Your task to perform on an android device: Open Youtube and go to "Your channel" Image 0: 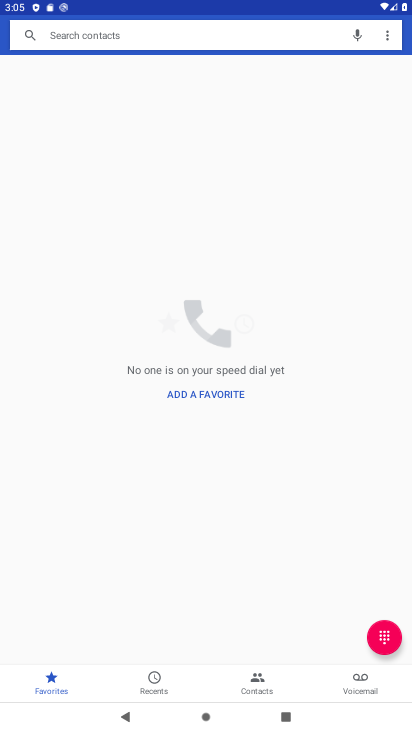
Step 0: press home button
Your task to perform on an android device: Open Youtube and go to "Your channel" Image 1: 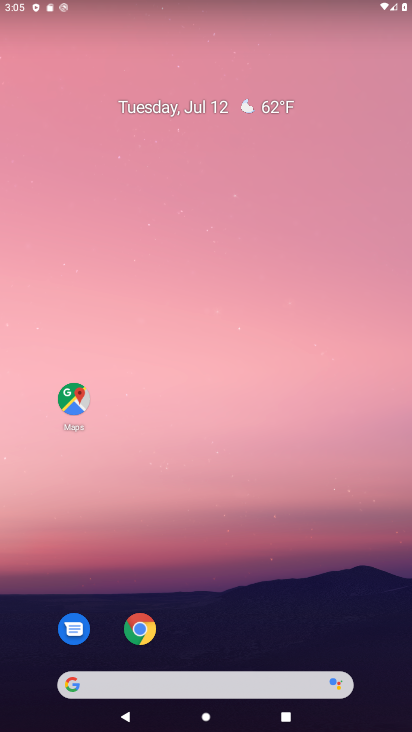
Step 1: drag from (155, 673) to (180, 211)
Your task to perform on an android device: Open Youtube and go to "Your channel" Image 2: 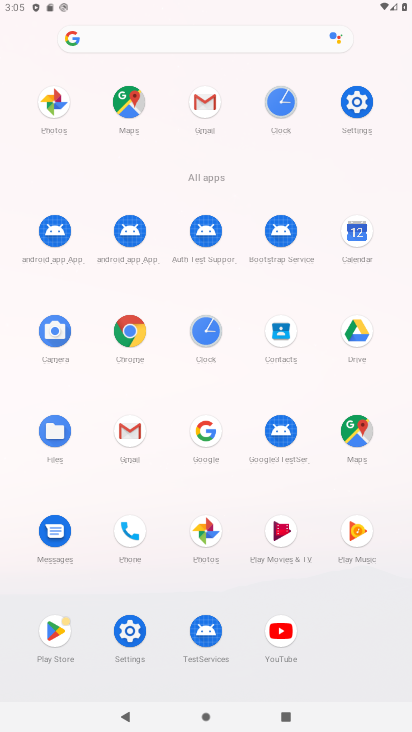
Step 2: click (272, 639)
Your task to perform on an android device: Open Youtube and go to "Your channel" Image 3: 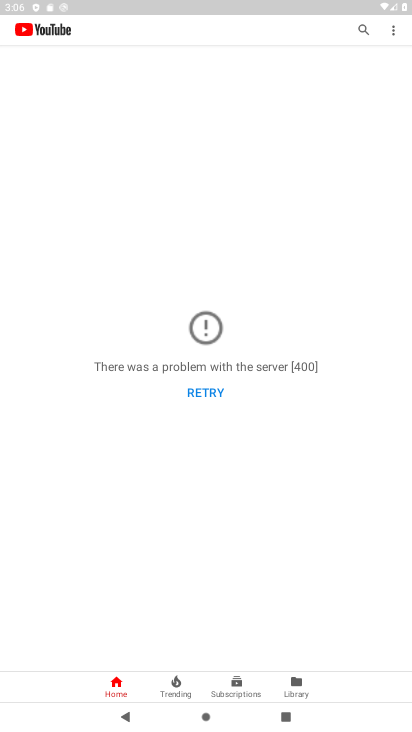
Step 3: click (295, 691)
Your task to perform on an android device: Open Youtube and go to "Your channel" Image 4: 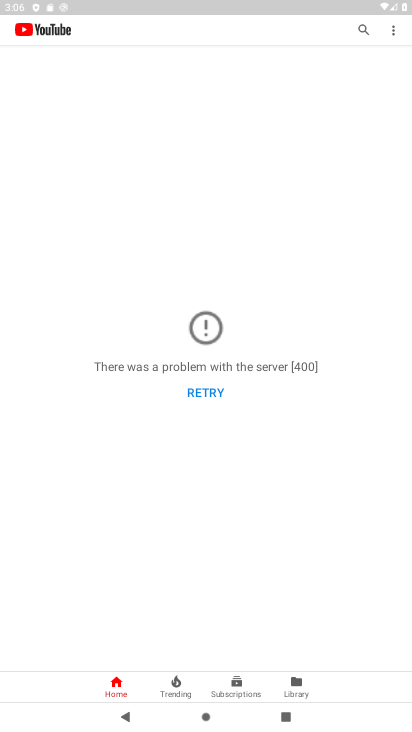
Step 4: click (291, 690)
Your task to perform on an android device: Open Youtube and go to "Your channel" Image 5: 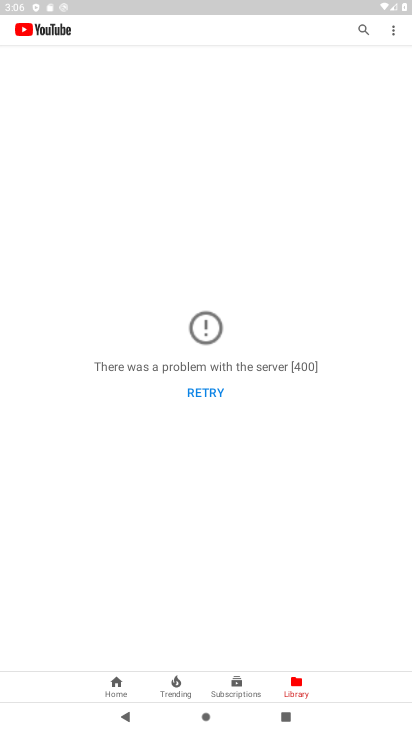
Step 5: task complete